Your task to perform on an android device: Search for sushi restaurants on Maps Image 0: 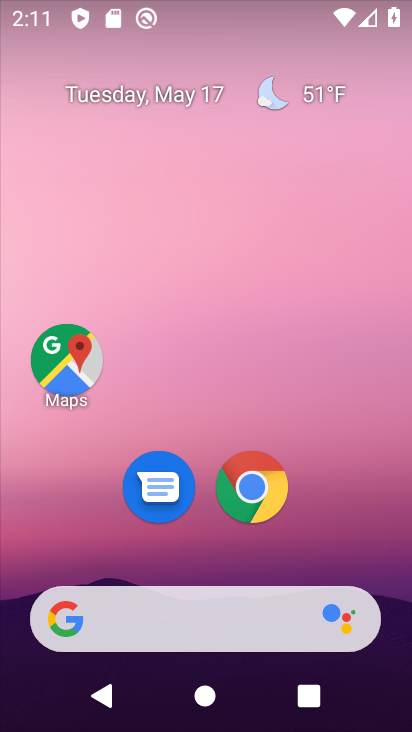
Step 0: click (64, 381)
Your task to perform on an android device: Search for sushi restaurants on Maps Image 1: 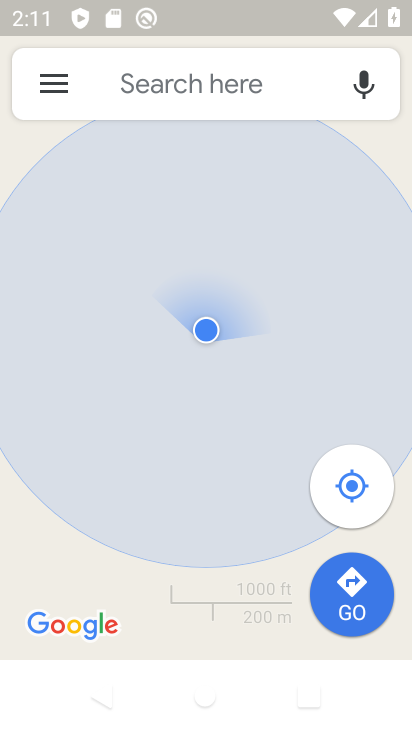
Step 1: click (193, 104)
Your task to perform on an android device: Search for sushi restaurants on Maps Image 2: 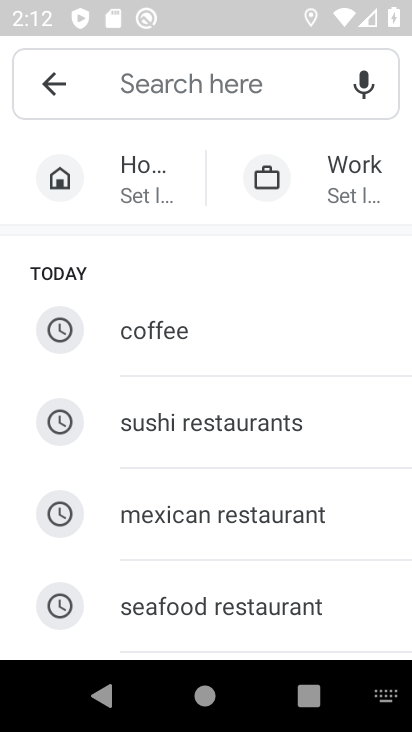
Step 2: type "sushi restaurants"
Your task to perform on an android device: Search for sushi restaurants on Maps Image 3: 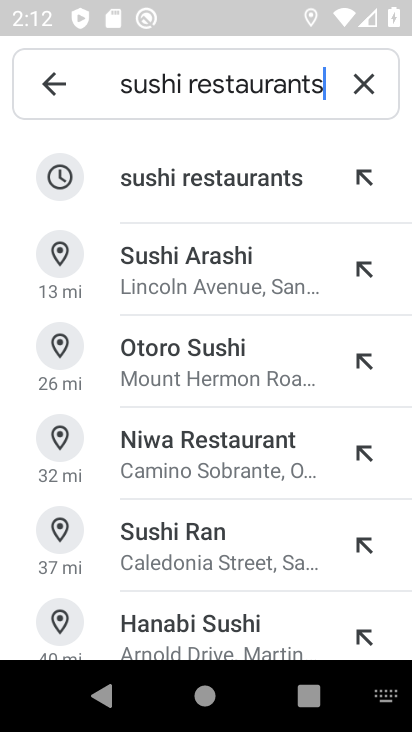
Step 3: click (226, 175)
Your task to perform on an android device: Search for sushi restaurants on Maps Image 4: 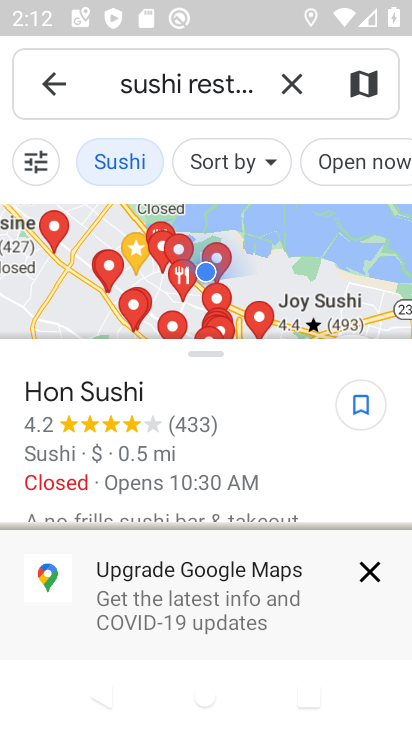
Step 4: task complete